Your task to perform on an android device: open app "Duolingo: language lessons" (install if not already installed) and enter user name: "omens@gmail.com" and password: "casks" Image 0: 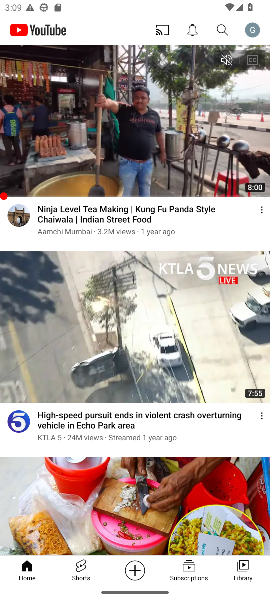
Step 0: press home button
Your task to perform on an android device: open app "Duolingo: language lessons" (install if not already installed) and enter user name: "omens@gmail.com" and password: "casks" Image 1: 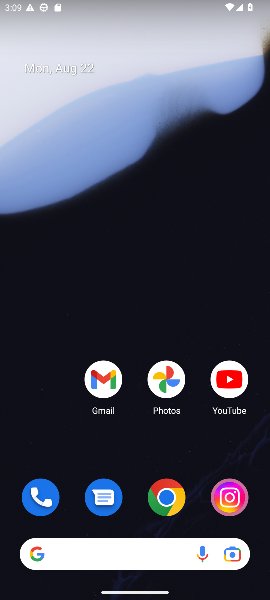
Step 1: drag from (140, 456) to (147, 71)
Your task to perform on an android device: open app "Duolingo: language lessons" (install if not already installed) and enter user name: "omens@gmail.com" and password: "casks" Image 2: 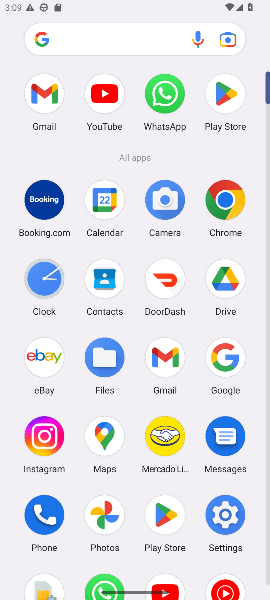
Step 2: click (229, 107)
Your task to perform on an android device: open app "Duolingo: language lessons" (install if not already installed) and enter user name: "omens@gmail.com" and password: "casks" Image 3: 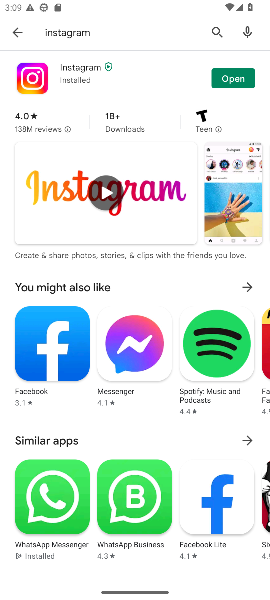
Step 3: click (215, 26)
Your task to perform on an android device: open app "Duolingo: language lessons" (install if not already installed) and enter user name: "omens@gmail.com" and password: "casks" Image 4: 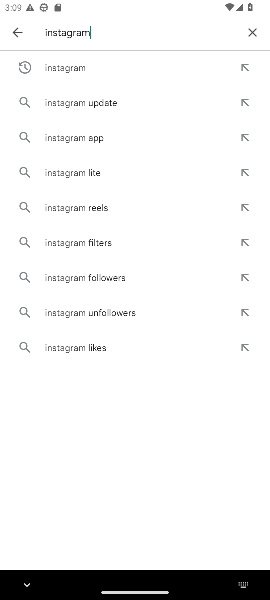
Step 4: click (252, 32)
Your task to perform on an android device: open app "Duolingo: language lessons" (install if not already installed) and enter user name: "omens@gmail.com" and password: "casks" Image 5: 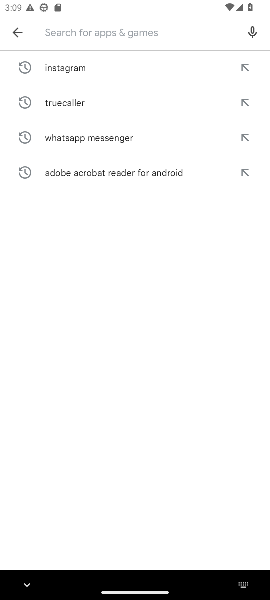
Step 5: type "Duolingo: language lessons"
Your task to perform on an android device: open app "Duolingo: language lessons" (install if not already installed) and enter user name: "omens@gmail.com" and password: "casks" Image 6: 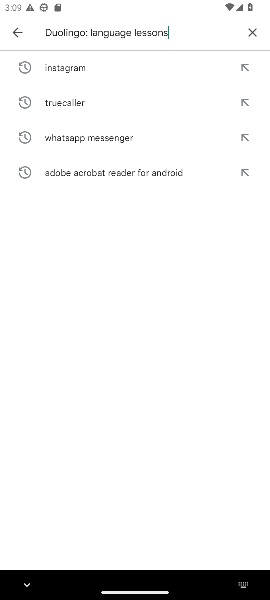
Step 6: type ""
Your task to perform on an android device: open app "Duolingo: language lessons" (install if not already installed) and enter user name: "omens@gmail.com" and password: "casks" Image 7: 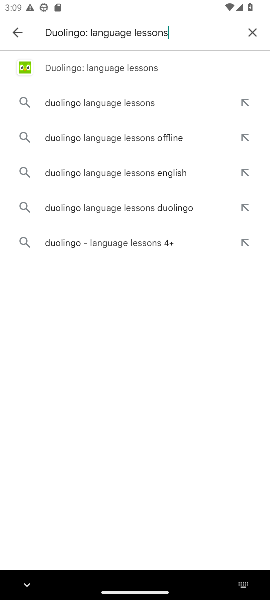
Step 7: click (79, 65)
Your task to perform on an android device: open app "Duolingo: language lessons" (install if not already installed) and enter user name: "omens@gmail.com" and password: "casks" Image 8: 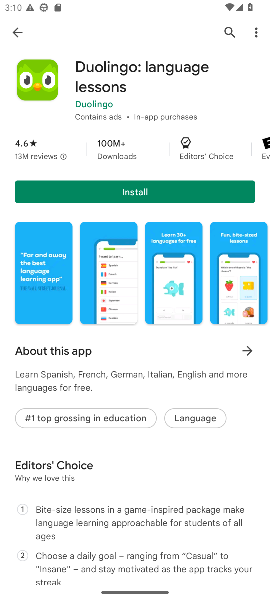
Step 8: click (124, 195)
Your task to perform on an android device: open app "Duolingo: language lessons" (install if not already installed) and enter user name: "omens@gmail.com" and password: "casks" Image 9: 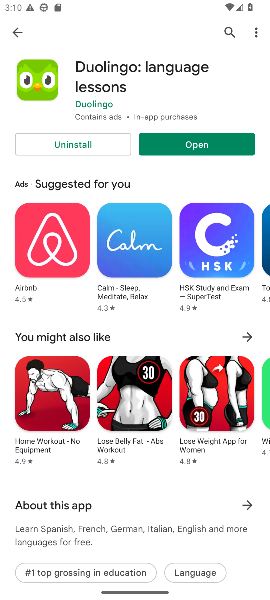
Step 9: click (184, 148)
Your task to perform on an android device: open app "Duolingo: language lessons" (install if not already installed) and enter user name: "omens@gmail.com" and password: "casks" Image 10: 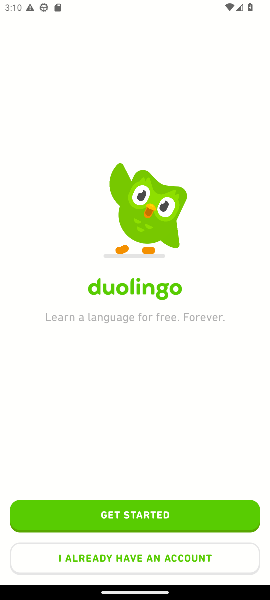
Step 10: task complete